Your task to perform on an android device: change your default location settings in chrome Image 0: 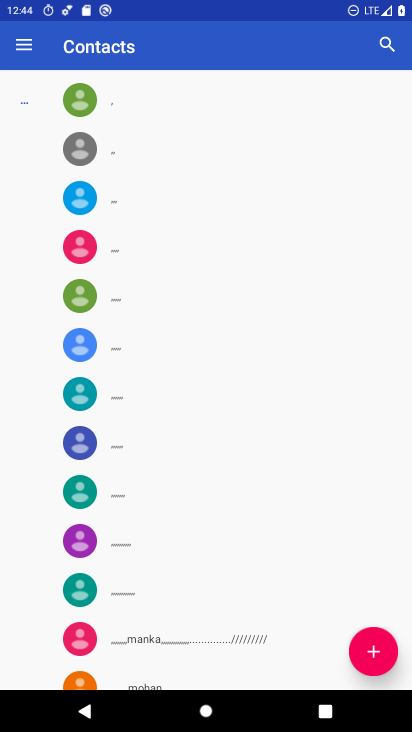
Step 0: press home button
Your task to perform on an android device: change your default location settings in chrome Image 1: 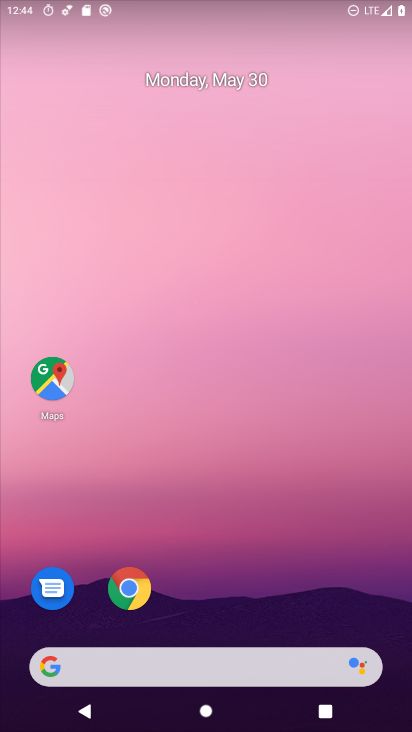
Step 1: drag from (283, 548) to (310, 75)
Your task to perform on an android device: change your default location settings in chrome Image 2: 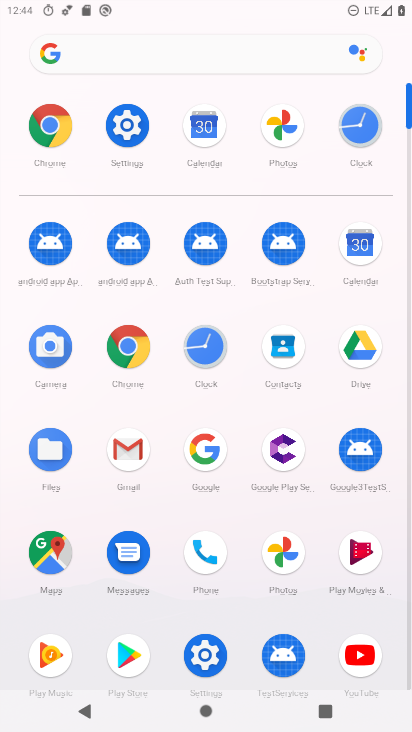
Step 2: click (136, 356)
Your task to perform on an android device: change your default location settings in chrome Image 3: 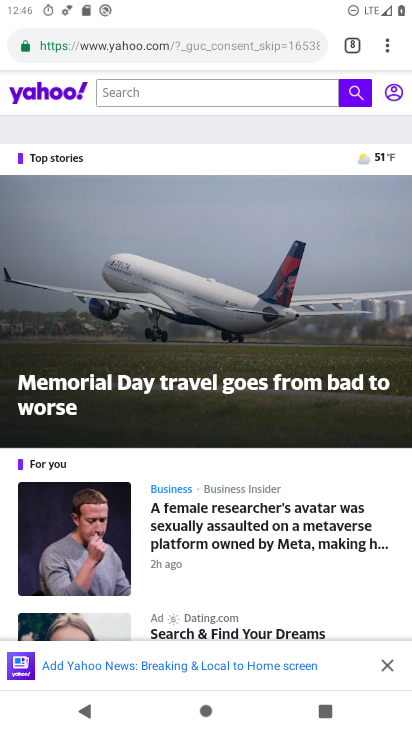
Step 3: click (387, 50)
Your task to perform on an android device: change your default location settings in chrome Image 4: 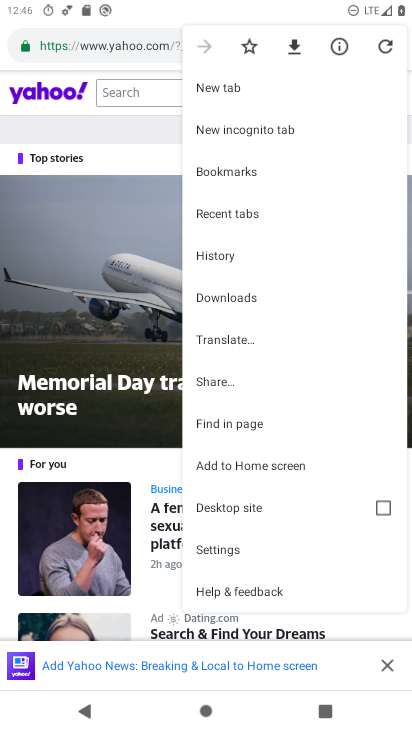
Step 4: click (236, 547)
Your task to perform on an android device: change your default location settings in chrome Image 5: 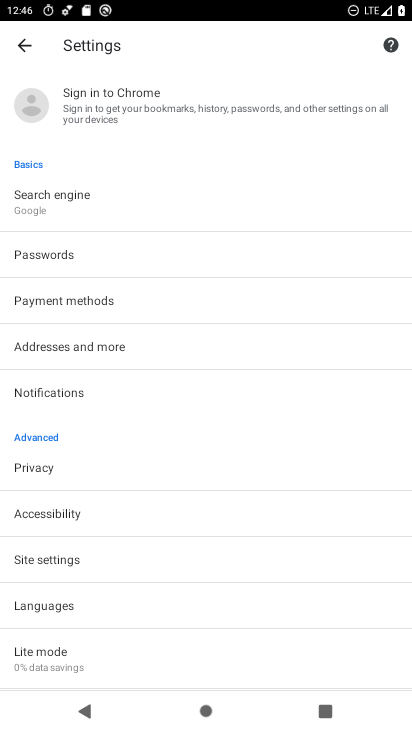
Step 5: click (123, 555)
Your task to perform on an android device: change your default location settings in chrome Image 6: 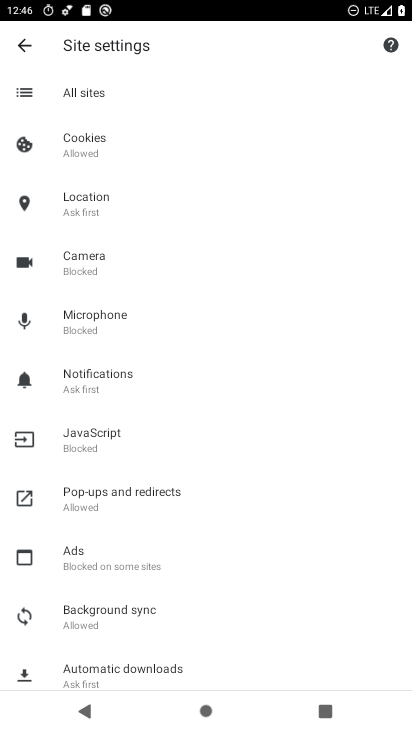
Step 6: click (152, 212)
Your task to perform on an android device: change your default location settings in chrome Image 7: 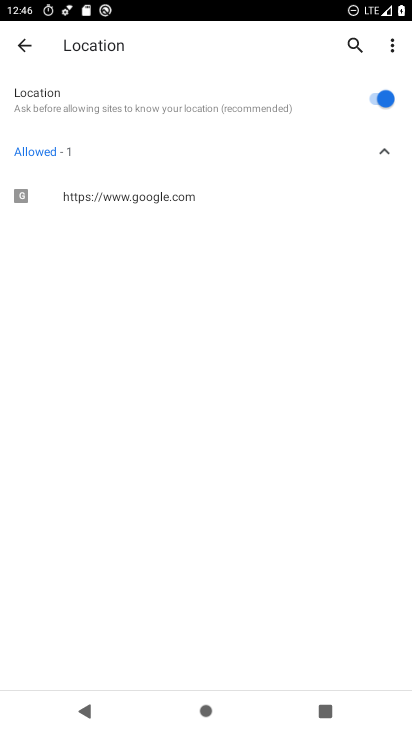
Step 7: click (382, 103)
Your task to perform on an android device: change your default location settings in chrome Image 8: 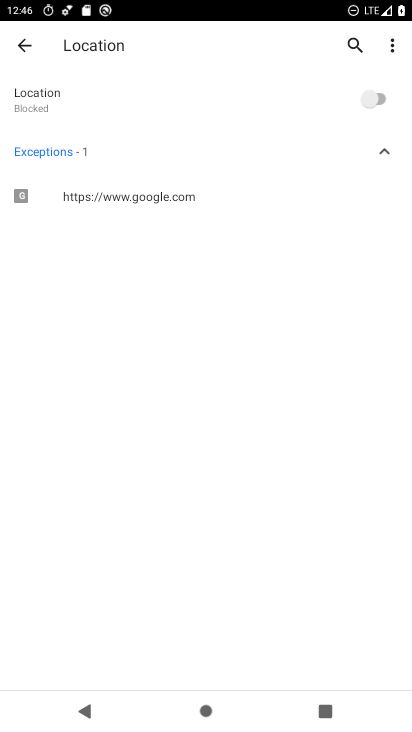
Step 8: task complete